Your task to perform on an android device: turn off sleep mode Image 0: 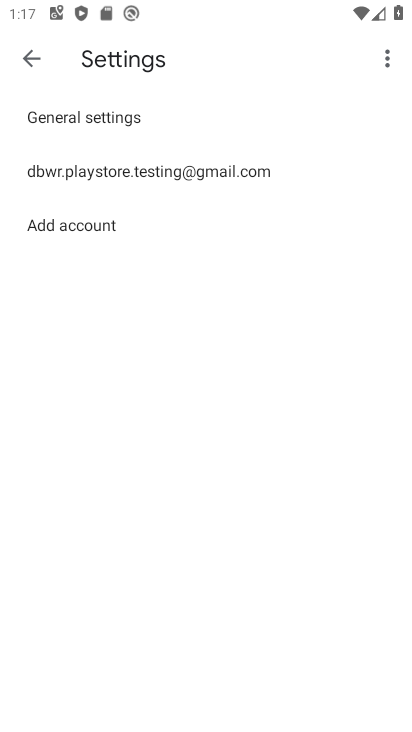
Step 0: press back button
Your task to perform on an android device: turn off sleep mode Image 1: 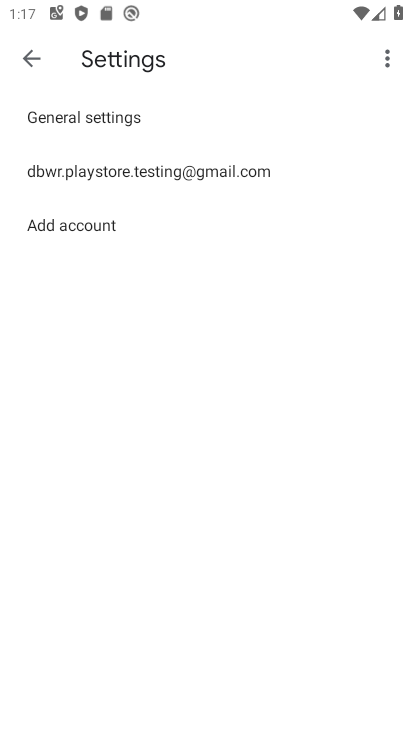
Step 1: press back button
Your task to perform on an android device: turn off sleep mode Image 2: 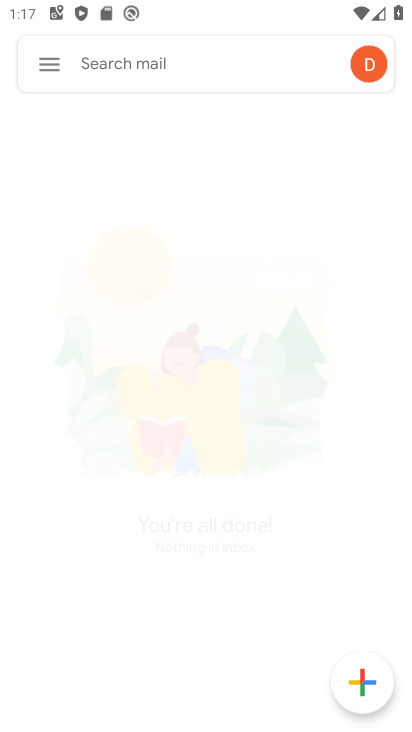
Step 2: press back button
Your task to perform on an android device: turn off sleep mode Image 3: 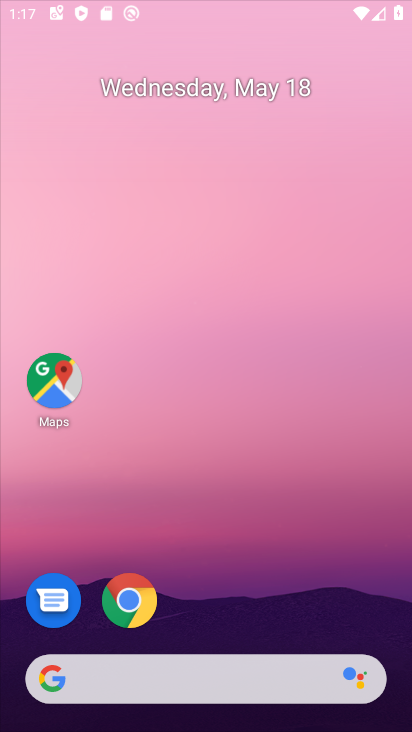
Step 3: press back button
Your task to perform on an android device: turn off sleep mode Image 4: 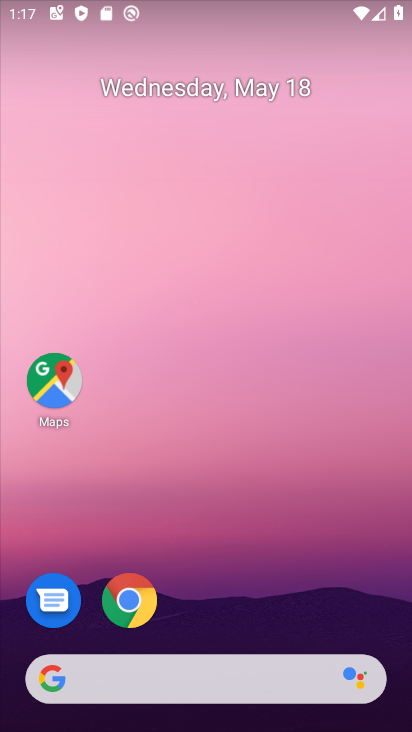
Step 4: drag from (261, 565) to (196, 115)
Your task to perform on an android device: turn off sleep mode Image 5: 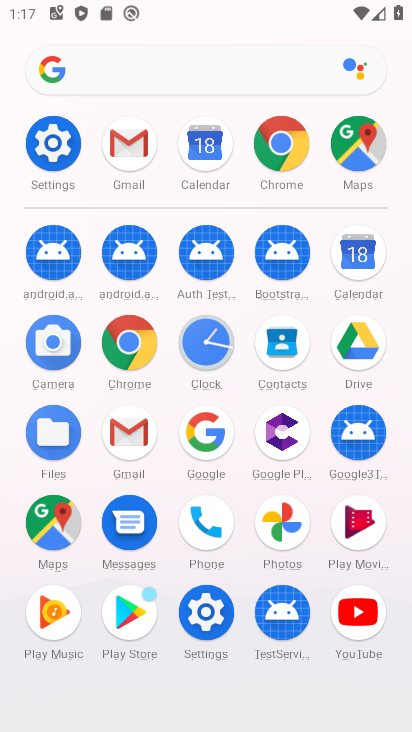
Step 5: click (48, 143)
Your task to perform on an android device: turn off sleep mode Image 6: 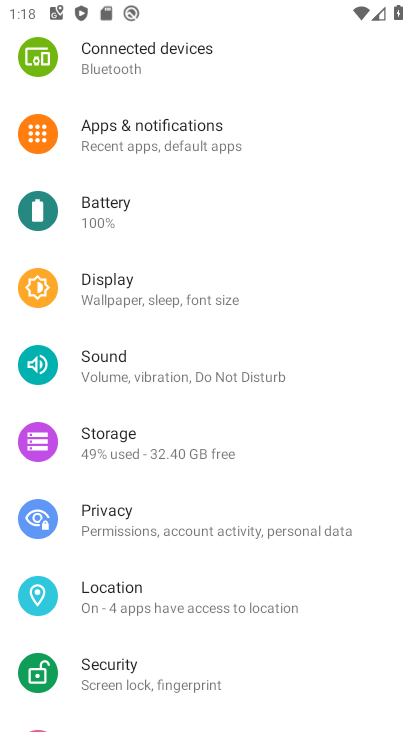
Step 6: click (180, 309)
Your task to perform on an android device: turn off sleep mode Image 7: 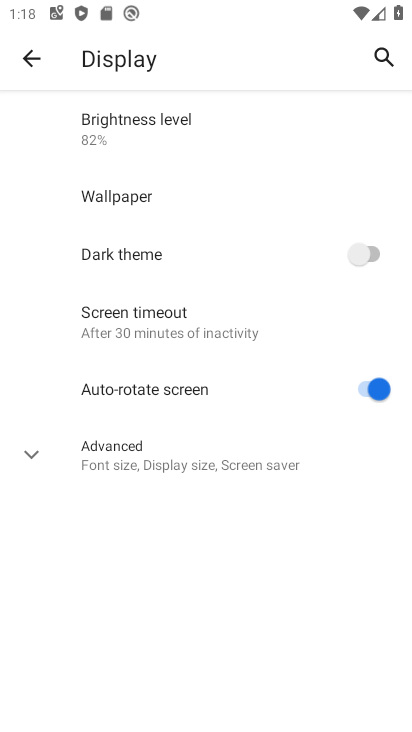
Step 7: click (156, 328)
Your task to perform on an android device: turn off sleep mode Image 8: 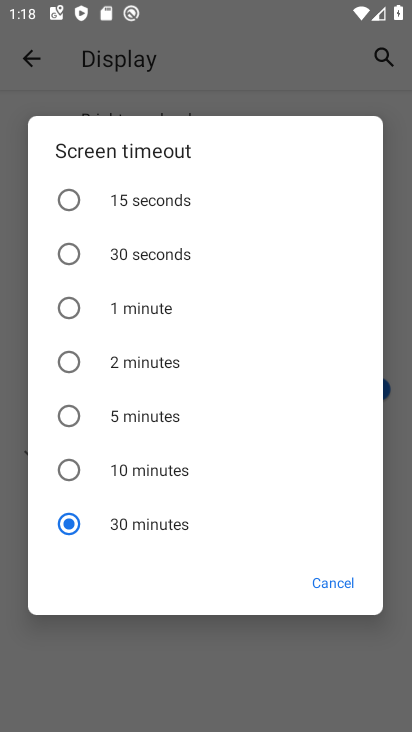
Step 8: click (348, 582)
Your task to perform on an android device: turn off sleep mode Image 9: 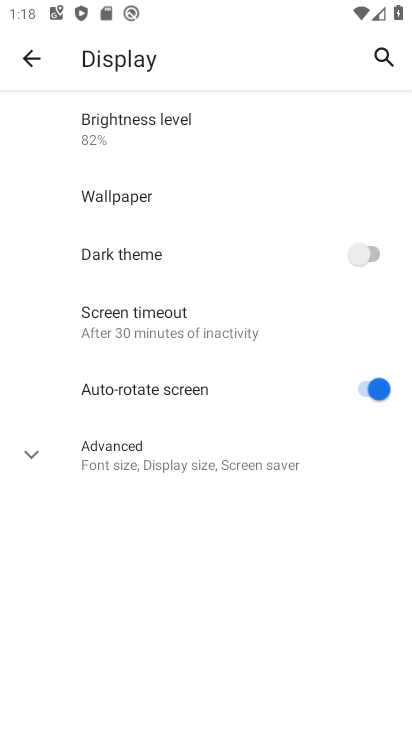
Step 9: click (224, 470)
Your task to perform on an android device: turn off sleep mode Image 10: 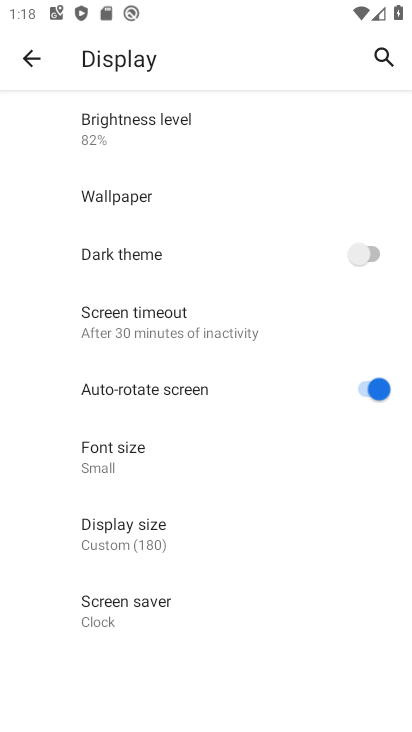
Step 10: task complete